Your task to perform on an android device: Open Chrome and go to the settings page Image 0: 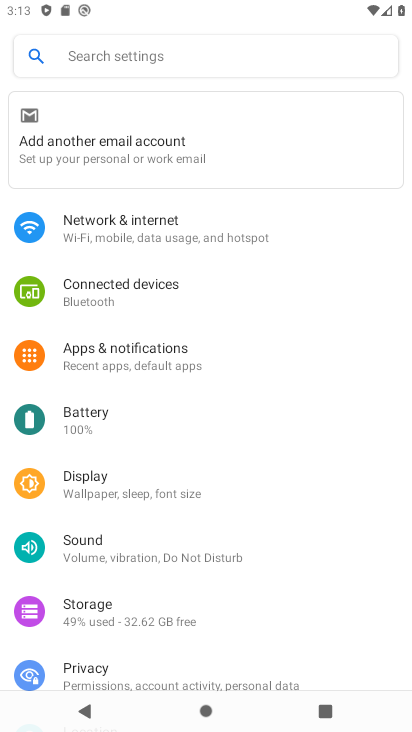
Step 0: press home button
Your task to perform on an android device: Open Chrome and go to the settings page Image 1: 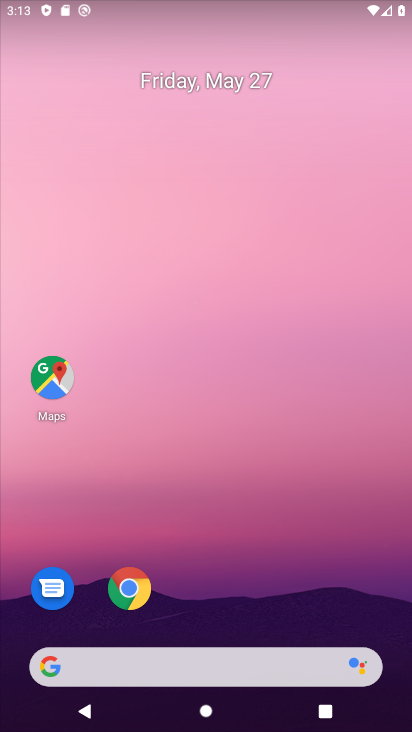
Step 1: click (139, 576)
Your task to perform on an android device: Open Chrome and go to the settings page Image 2: 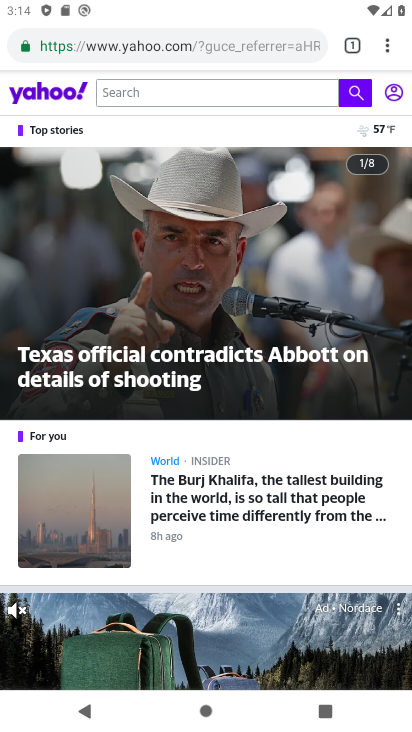
Step 2: click (383, 41)
Your task to perform on an android device: Open Chrome and go to the settings page Image 3: 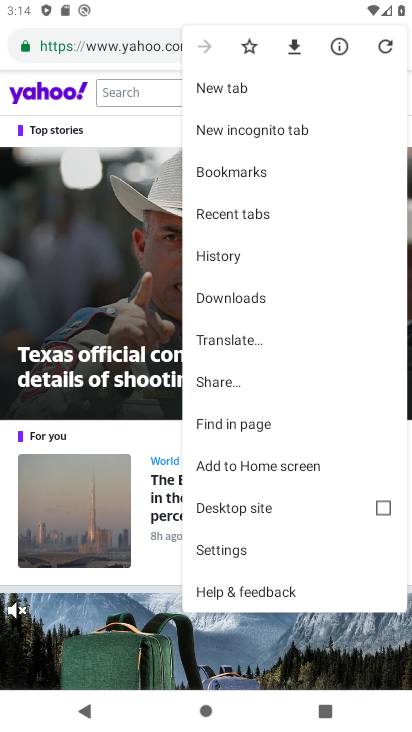
Step 3: click (234, 546)
Your task to perform on an android device: Open Chrome and go to the settings page Image 4: 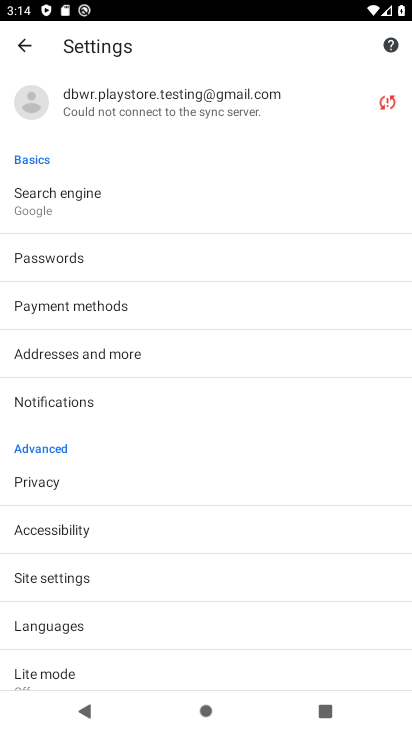
Step 4: task complete